Your task to perform on an android device: turn notification dots on Image 0: 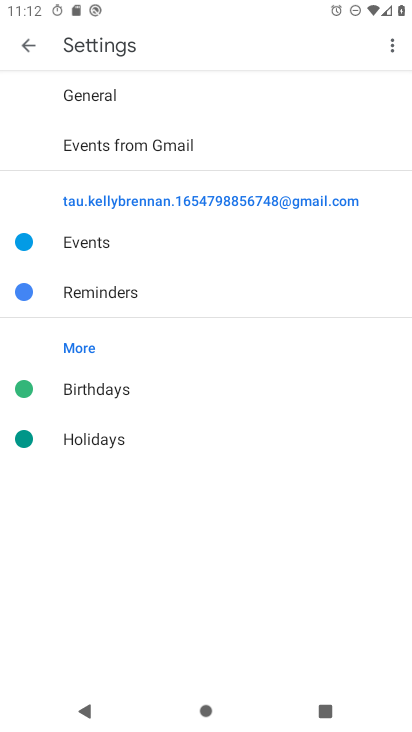
Step 0: press back button
Your task to perform on an android device: turn notification dots on Image 1: 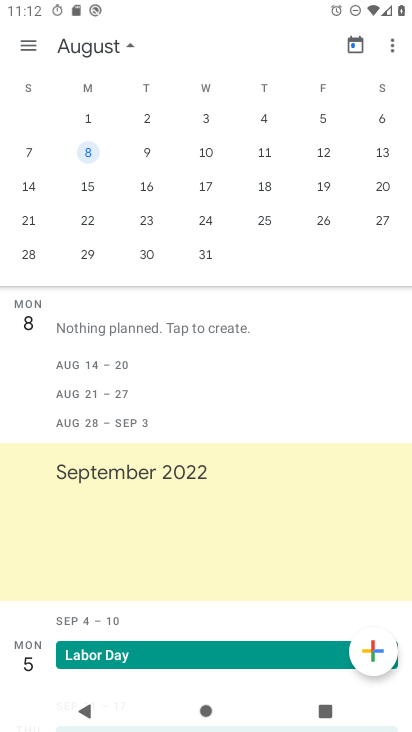
Step 1: press back button
Your task to perform on an android device: turn notification dots on Image 2: 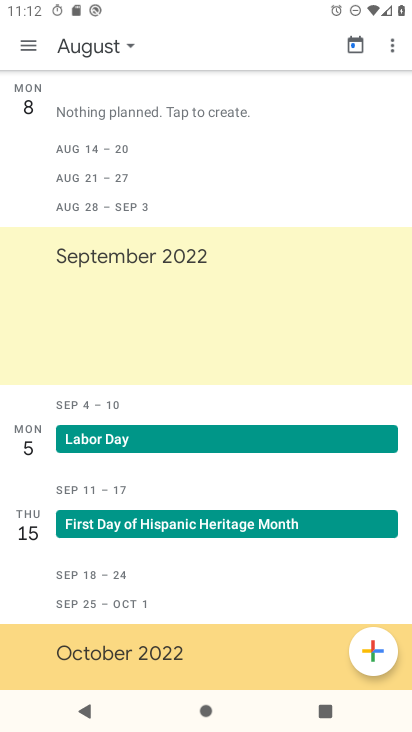
Step 2: press back button
Your task to perform on an android device: turn notification dots on Image 3: 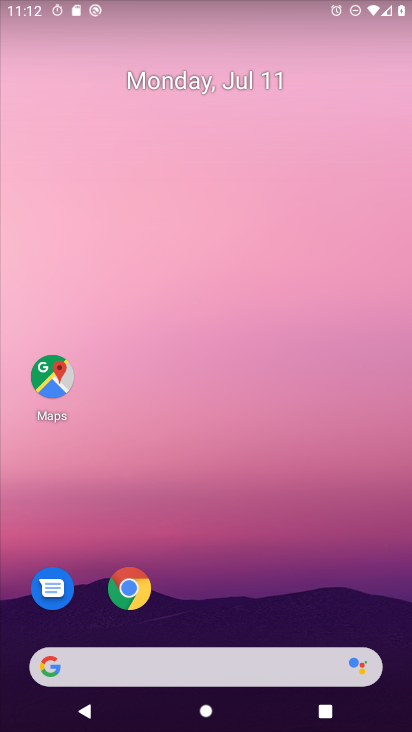
Step 3: drag from (187, 595) to (273, 40)
Your task to perform on an android device: turn notification dots on Image 4: 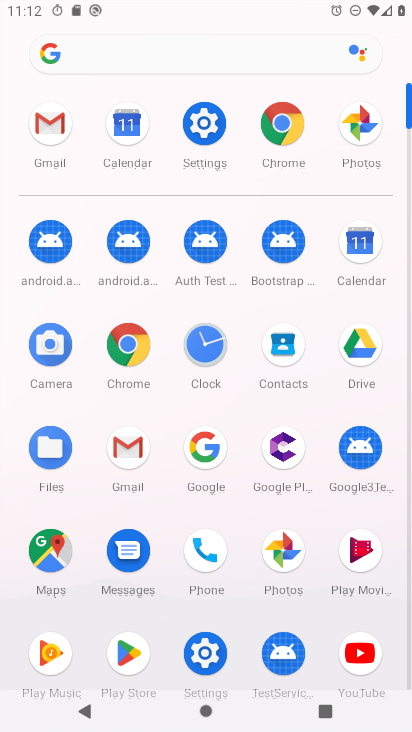
Step 4: click (215, 142)
Your task to perform on an android device: turn notification dots on Image 5: 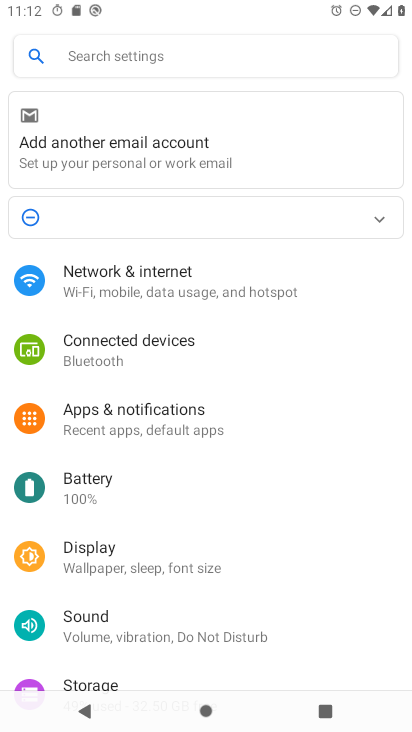
Step 5: click (139, 408)
Your task to perform on an android device: turn notification dots on Image 6: 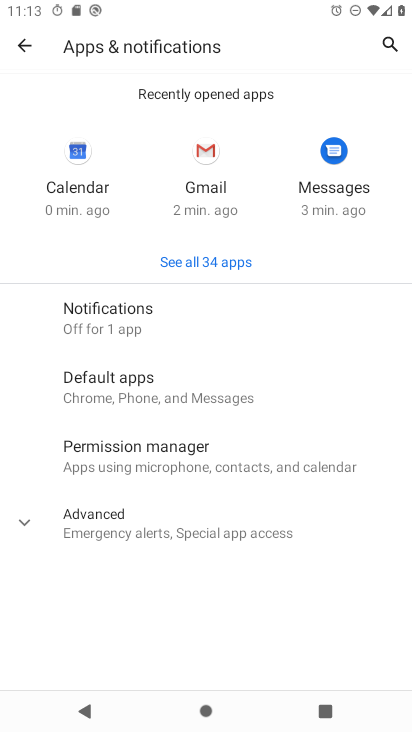
Step 6: click (154, 316)
Your task to perform on an android device: turn notification dots on Image 7: 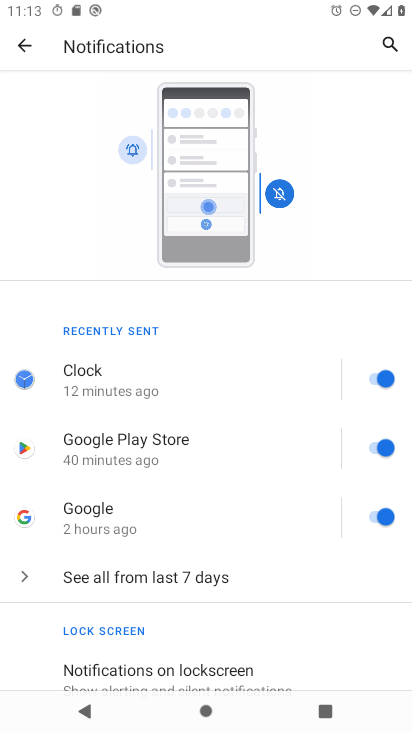
Step 7: drag from (209, 674) to (307, 140)
Your task to perform on an android device: turn notification dots on Image 8: 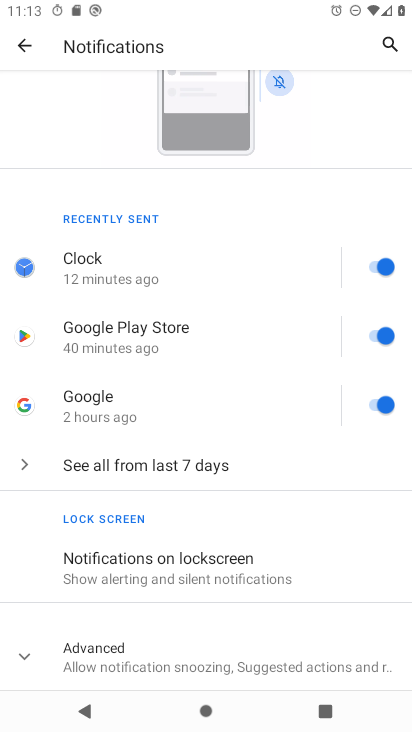
Step 8: click (161, 665)
Your task to perform on an android device: turn notification dots on Image 9: 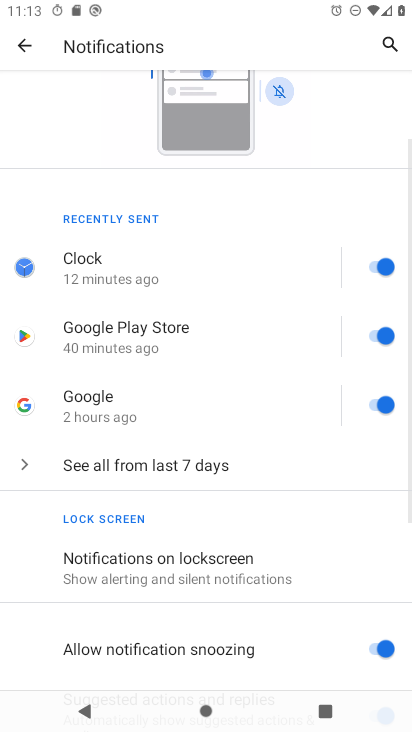
Step 9: drag from (196, 552) to (283, 159)
Your task to perform on an android device: turn notification dots on Image 10: 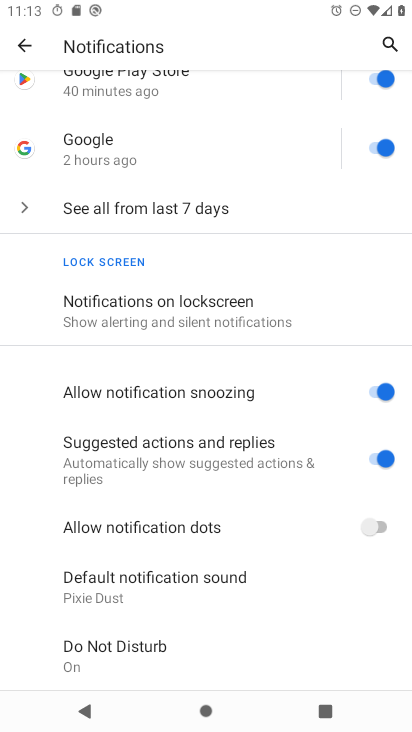
Step 10: click (375, 529)
Your task to perform on an android device: turn notification dots on Image 11: 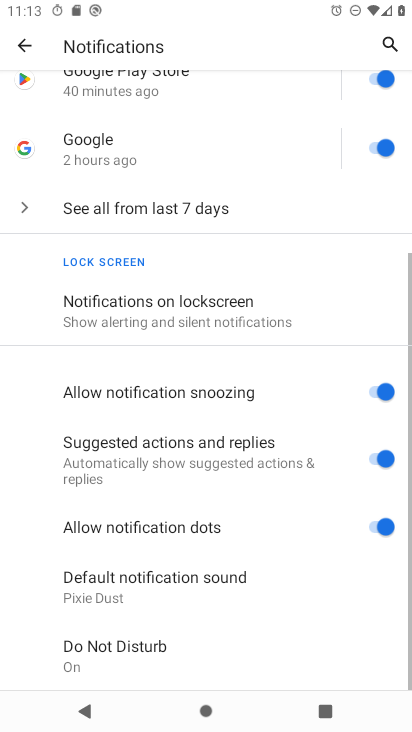
Step 11: task complete